Your task to perform on an android device: Go to ESPN.com Image 0: 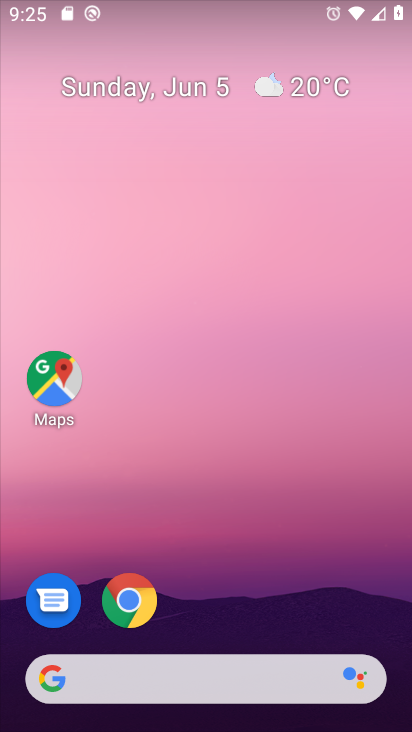
Step 0: click (254, 686)
Your task to perform on an android device: Go to ESPN.com Image 1: 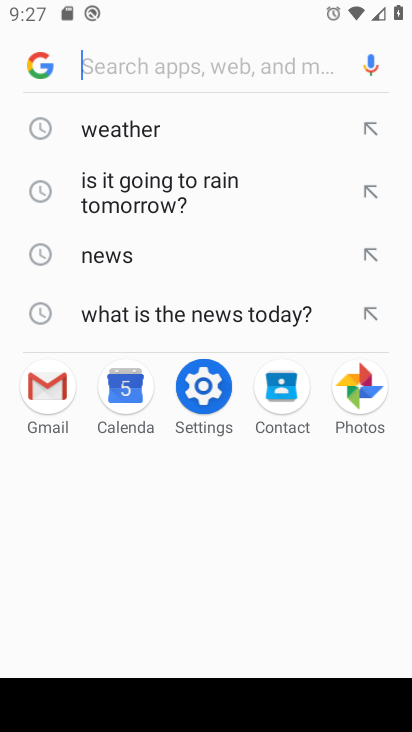
Step 1: type "espn.com"
Your task to perform on an android device: Go to ESPN.com Image 2: 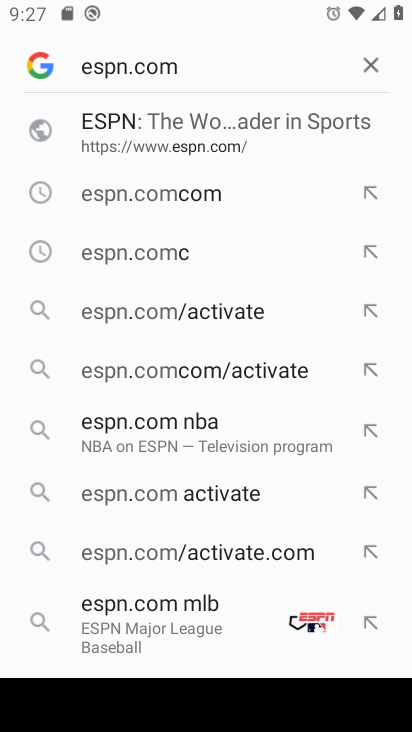
Step 2: click (154, 124)
Your task to perform on an android device: Go to ESPN.com Image 3: 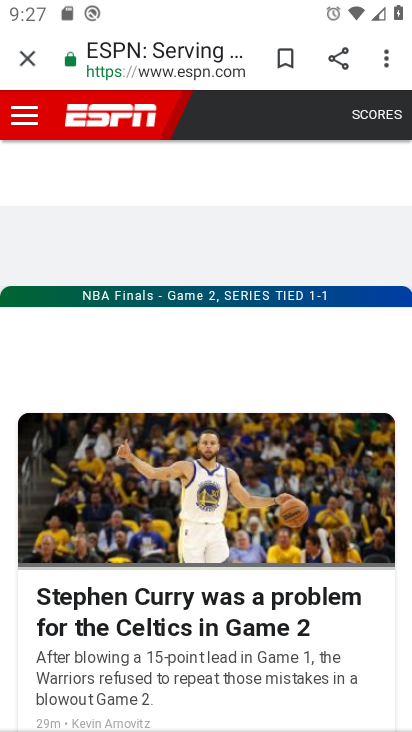
Step 3: task complete